Your task to perform on an android device: see tabs open on other devices in the chrome app Image 0: 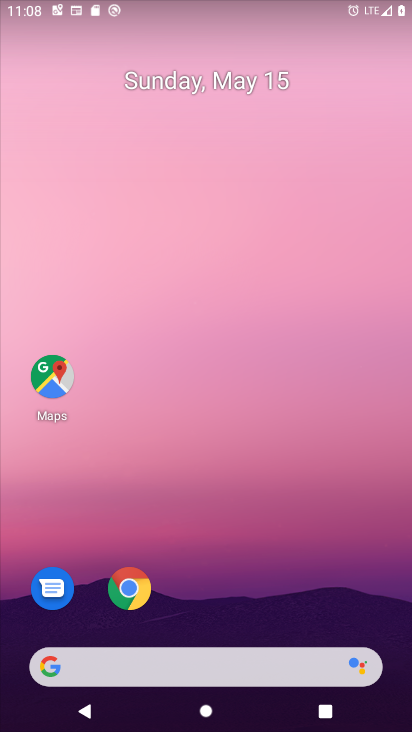
Step 0: click (133, 589)
Your task to perform on an android device: see tabs open on other devices in the chrome app Image 1: 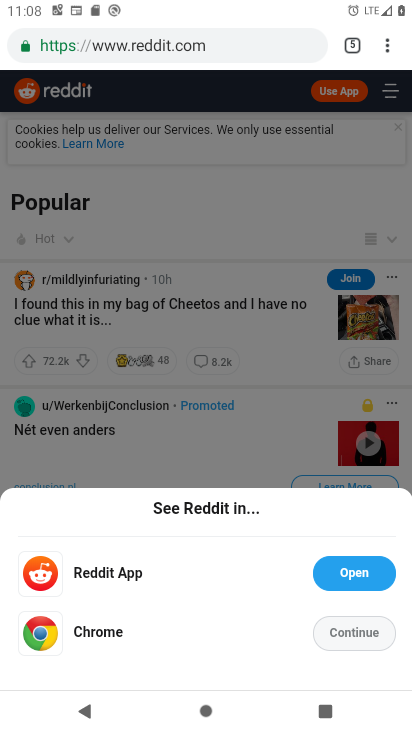
Step 1: click (390, 46)
Your task to perform on an android device: see tabs open on other devices in the chrome app Image 2: 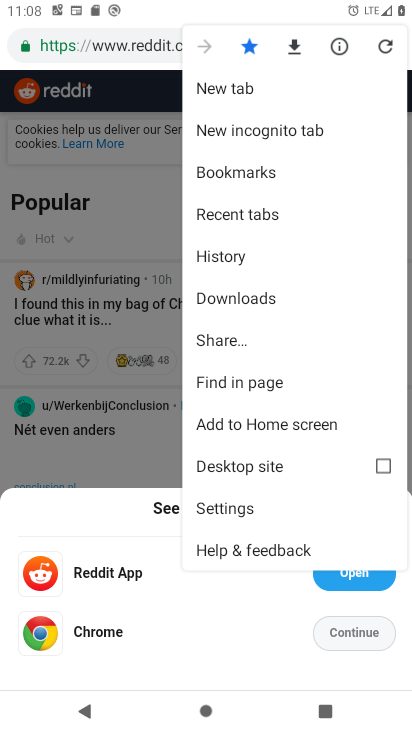
Step 2: click (235, 205)
Your task to perform on an android device: see tabs open on other devices in the chrome app Image 3: 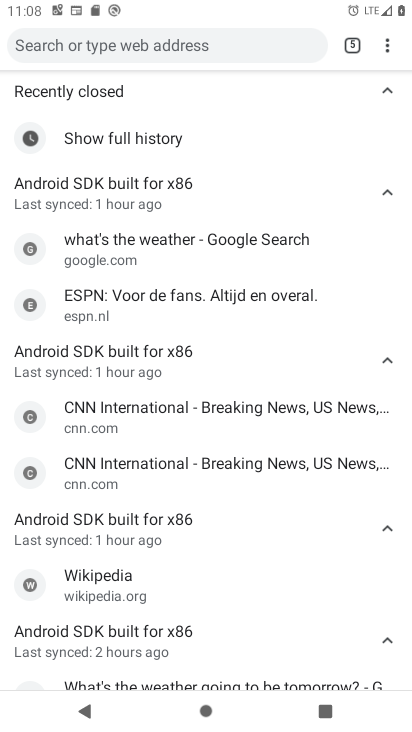
Step 3: task complete